Your task to perform on an android device: Check out the best rated 4k TV on Best Buy. Image 0: 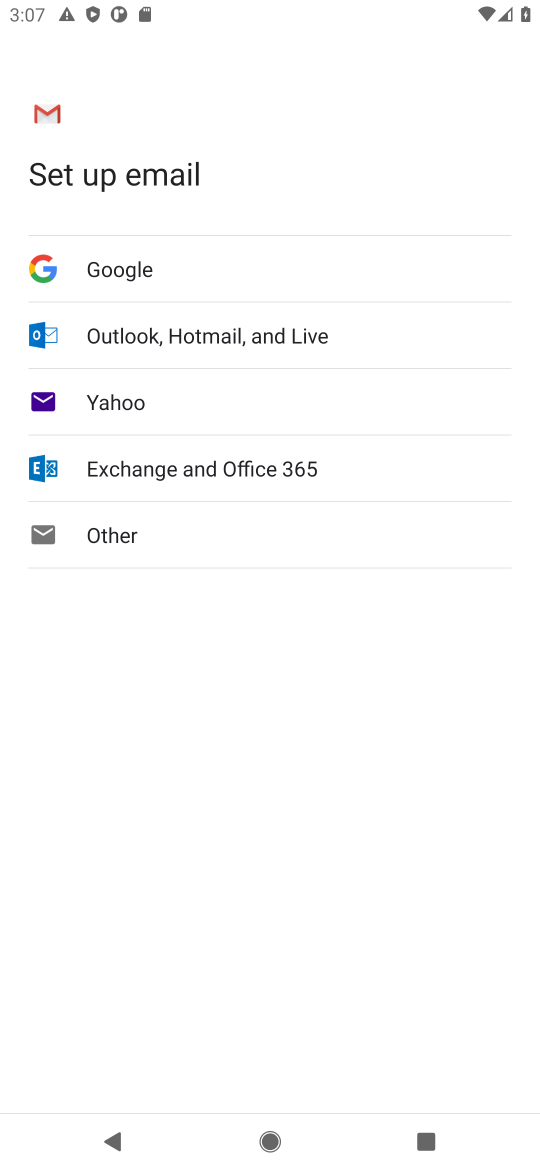
Step 0: press home button
Your task to perform on an android device: Check out the best rated 4k TV on Best Buy. Image 1: 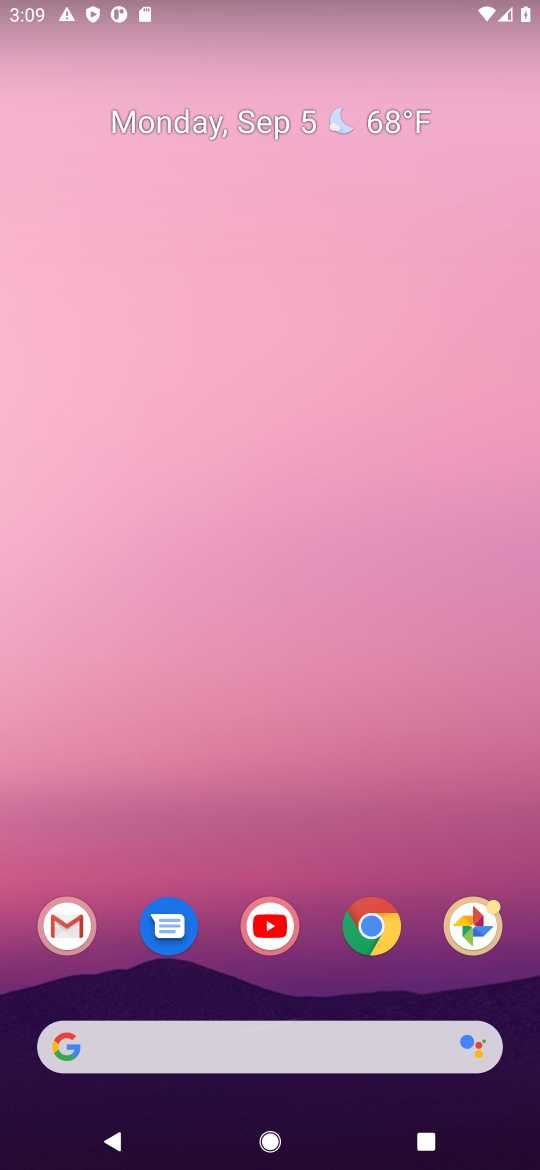
Step 1: task complete